Your task to perform on an android device: toggle wifi Image 0: 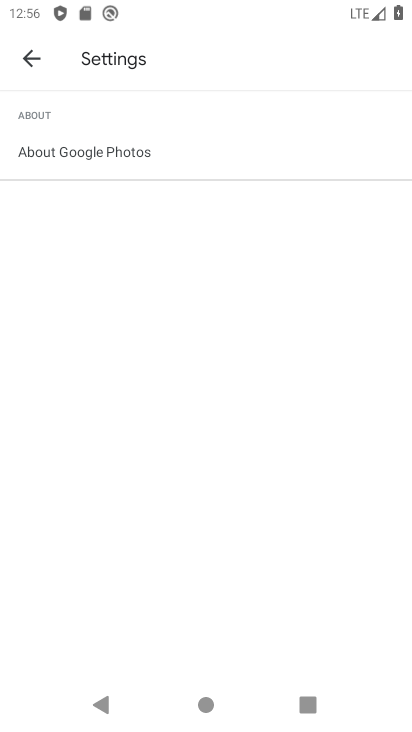
Step 0: press home button
Your task to perform on an android device: toggle wifi Image 1: 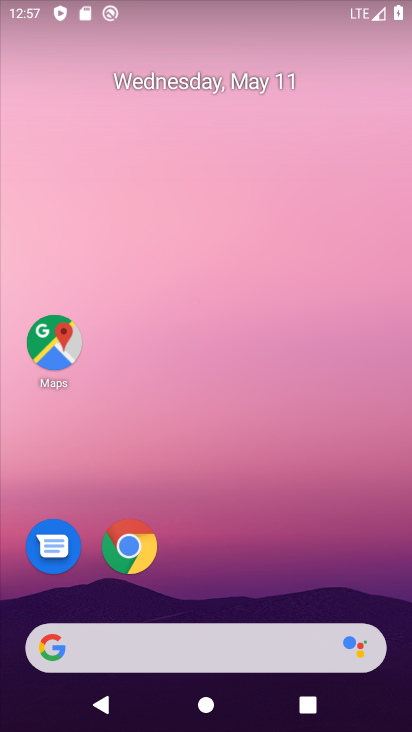
Step 1: drag from (255, 695) to (149, 307)
Your task to perform on an android device: toggle wifi Image 2: 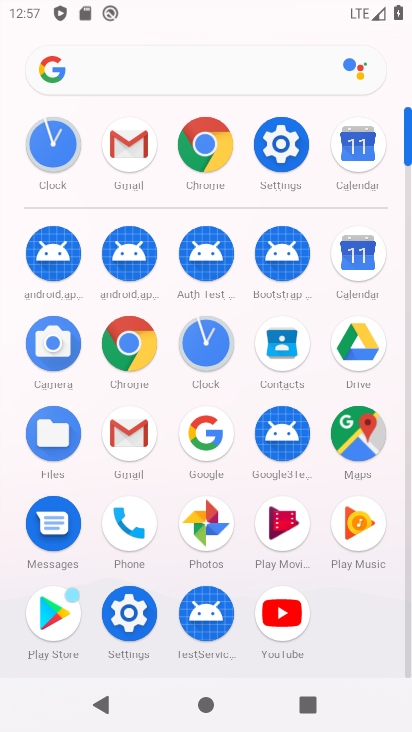
Step 2: click (276, 150)
Your task to perform on an android device: toggle wifi Image 3: 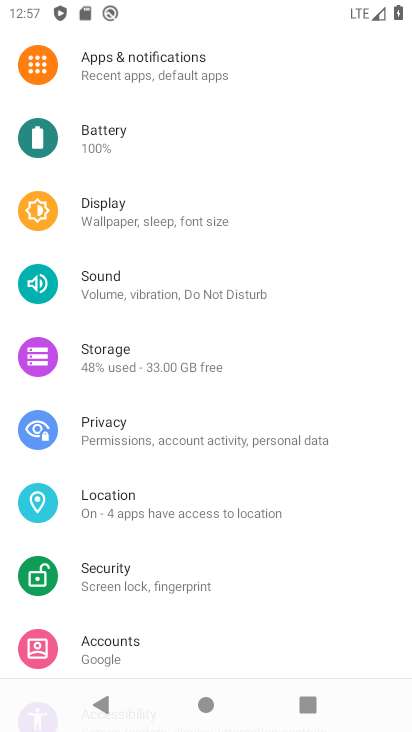
Step 3: drag from (157, 132) to (150, 459)
Your task to perform on an android device: toggle wifi Image 4: 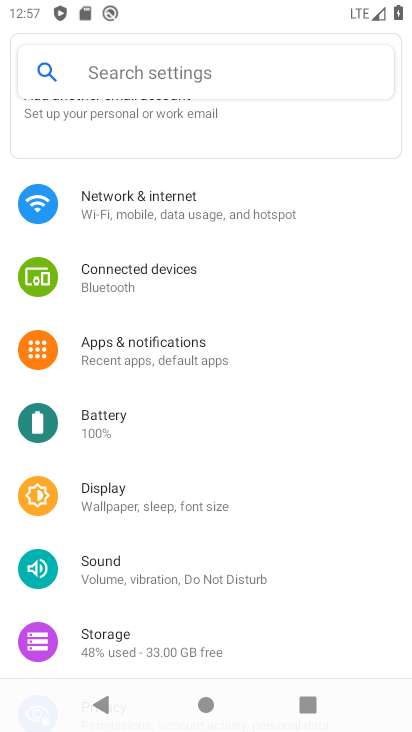
Step 4: click (159, 197)
Your task to perform on an android device: toggle wifi Image 5: 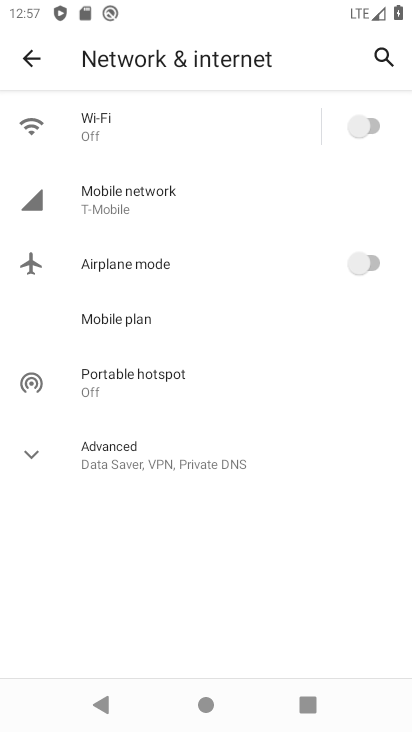
Step 5: click (127, 128)
Your task to perform on an android device: toggle wifi Image 6: 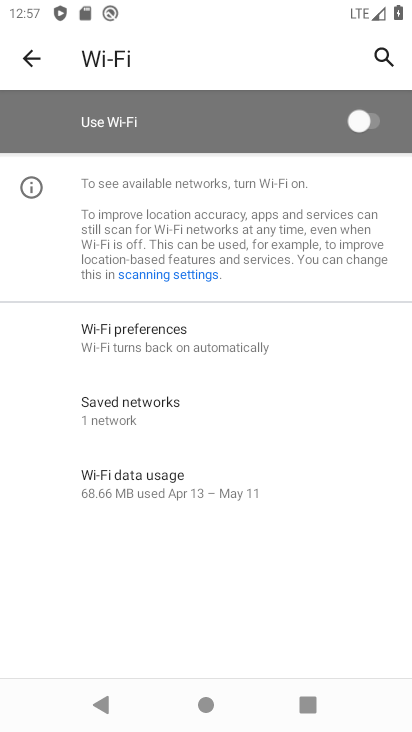
Step 6: task complete